Your task to perform on an android device: Go to wifi settings Image 0: 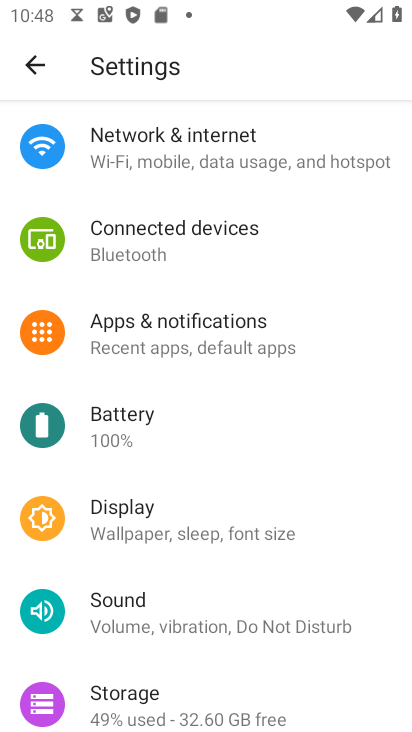
Step 0: click (202, 148)
Your task to perform on an android device: Go to wifi settings Image 1: 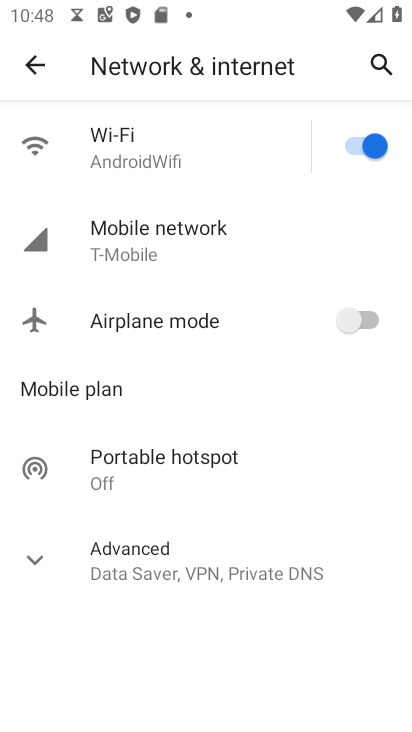
Step 1: click (161, 154)
Your task to perform on an android device: Go to wifi settings Image 2: 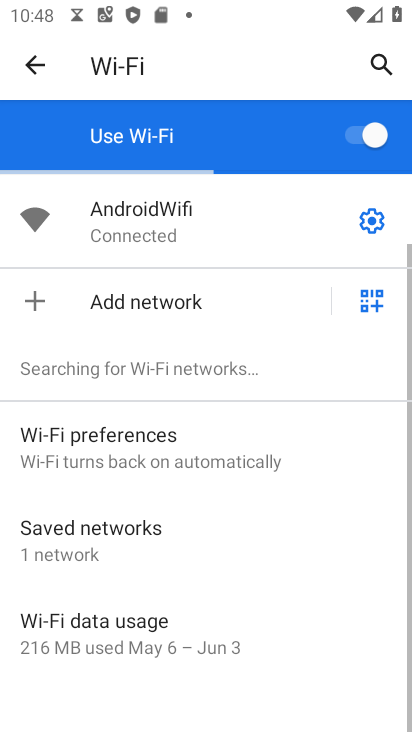
Step 2: task complete